Your task to perform on an android device: Show me popular games on the Play Store Image 0: 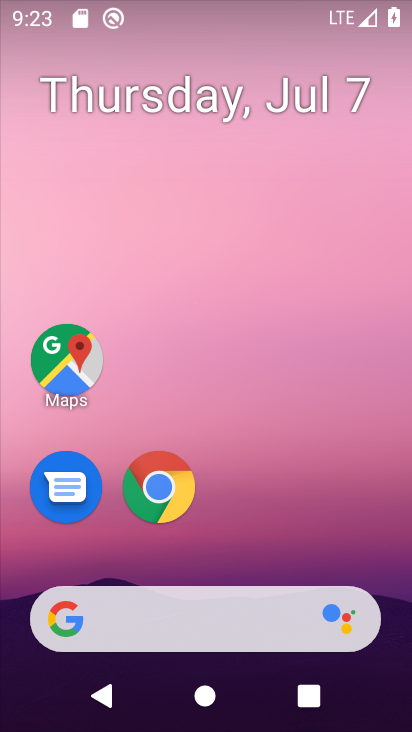
Step 0: drag from (356, 521) to (328, 91)
Your task to perform on an android device: Show me popular games on the Play Store Image 1: 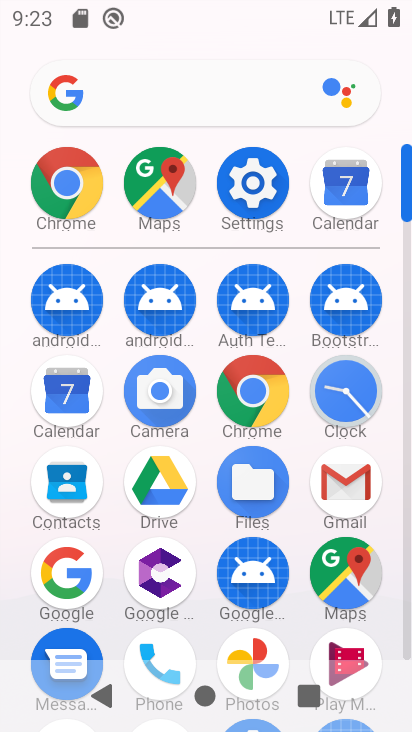
Step 1: drag from (386, 609) to (373, 311)
Your task to perform on an android device: Show me popular games on the Play Store Image 2: 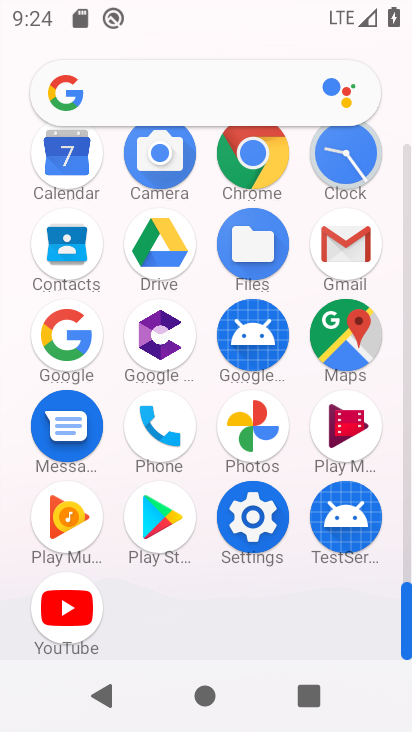
Step 2: click (166, 508)
Your task to perform on an android device: Show me popular games on the Play Store Image 3: 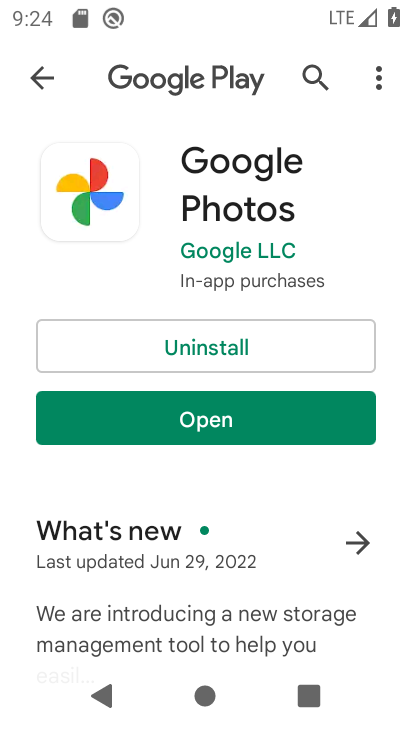
Step 3: press back button
Your task to perform on an android device: Show me popular games on the Play Store Image 4: 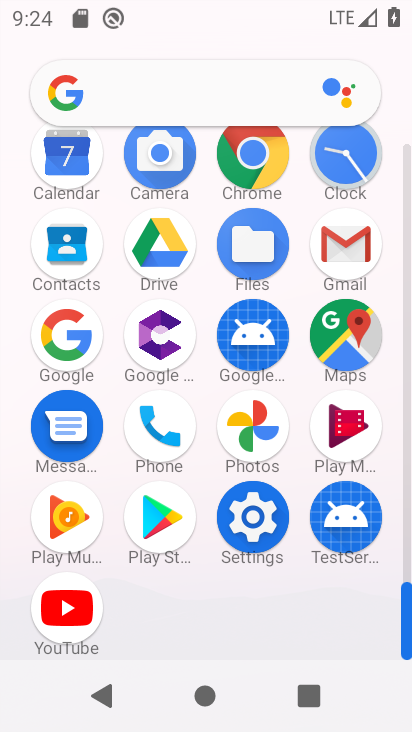
Step 4: click (168, 527)
Your task to perform on an android device: Show me popular games on the Play Store Image 5: 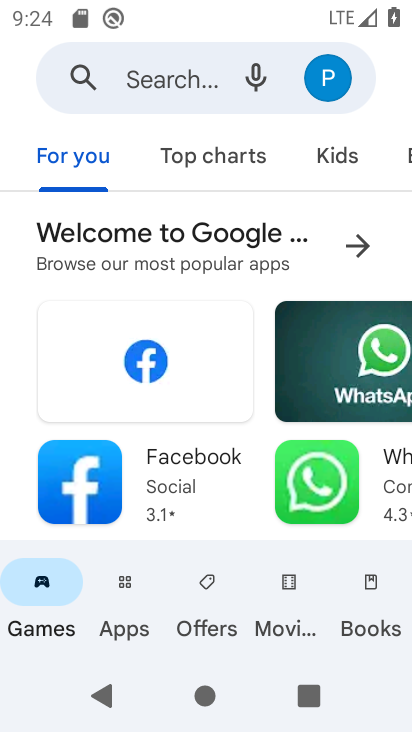
Step 5: drag from (243, 486) to (250, 339)
Your task to perform on an android device: Show me popular games on the Play Store Image 6: 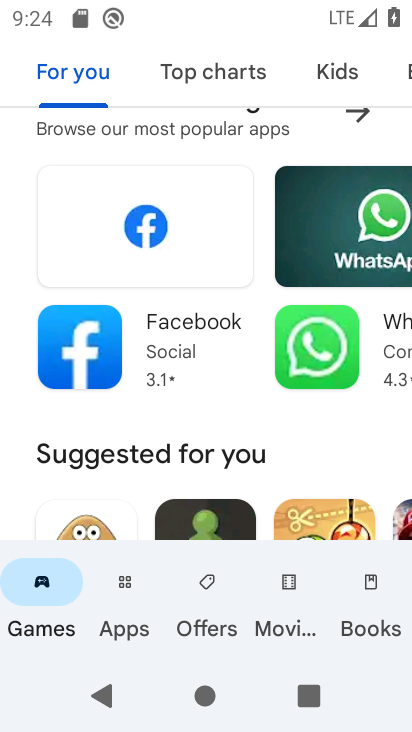
Step 6: click (36, 625)
Your task to perform on an android device: Show me popular games on the Play Store Image 7: 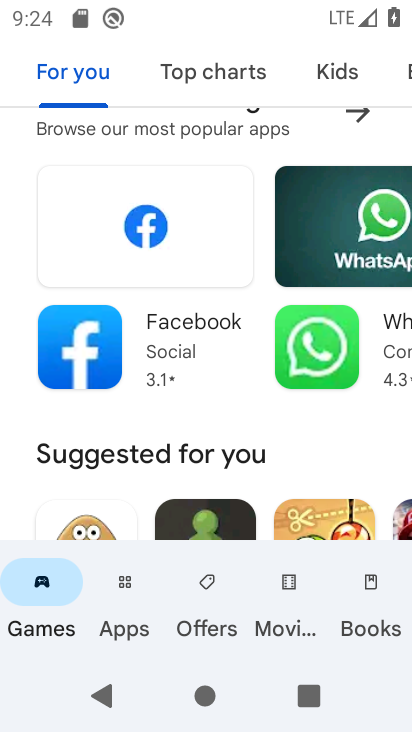
Step 7: task complete